Your task to perform on an android device: Do I have any events today? Image 0: 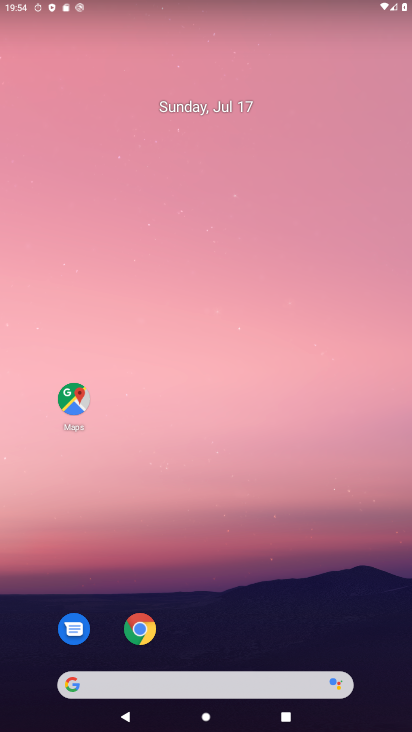
Step 0: drag from (311, 552) to (309, 75)
Your task to perform on an android device: Do I have any events today? Image 1: 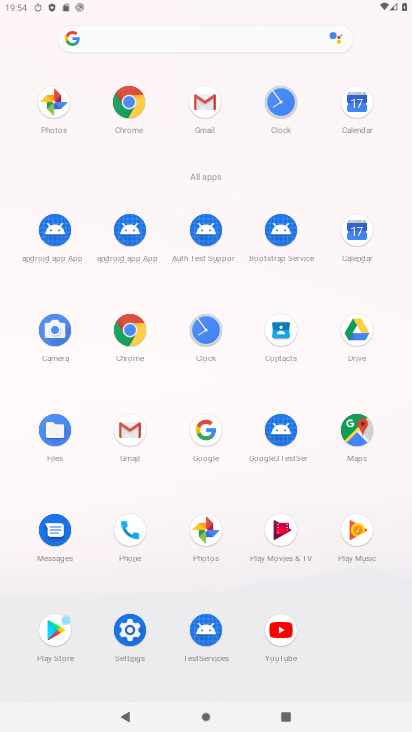
Step 1: click (360, 227)
Your task to perform on an android device: Do I have any events today? Image 2: 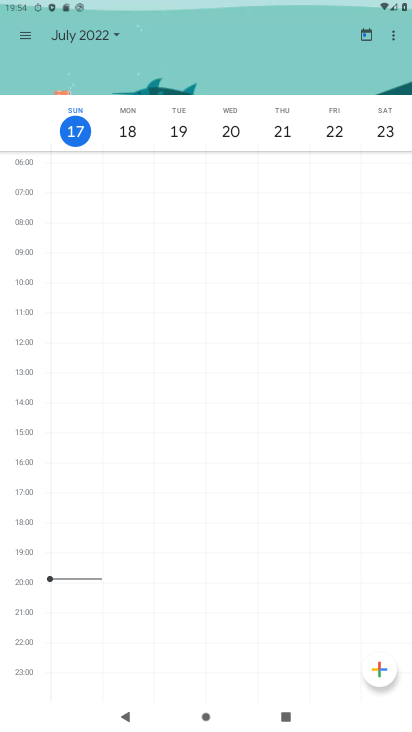
Step 2: click (74, 124)
Your task to perform on an android device: Do I have any events today? Image 3: 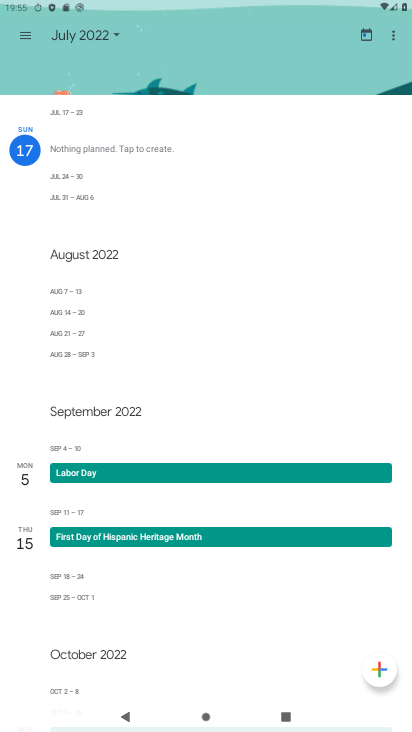
Step 3: task complete